Your task to perform on an android device: toggle javascript in the chrome app Image 0: 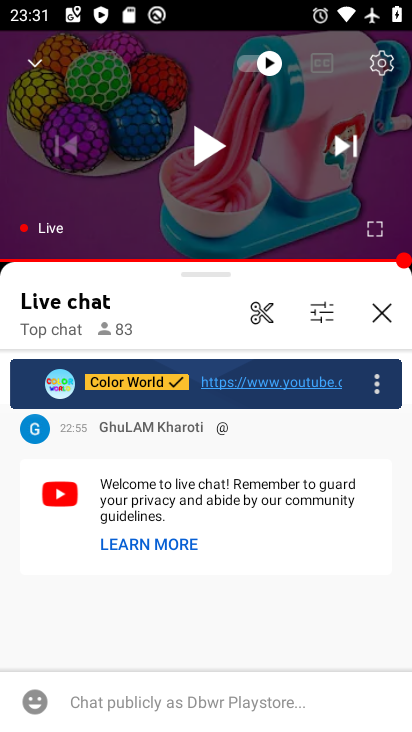
Step 0: press back button
Your task to perform on an android device: toggle javascript in the chrome app Image 1: 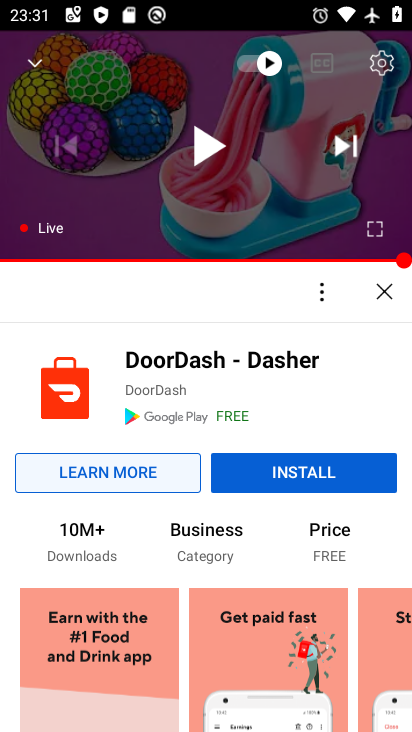
Step 1: press back button
Your task to perform on an android device: toggle javascript in the chrome app Image 2: 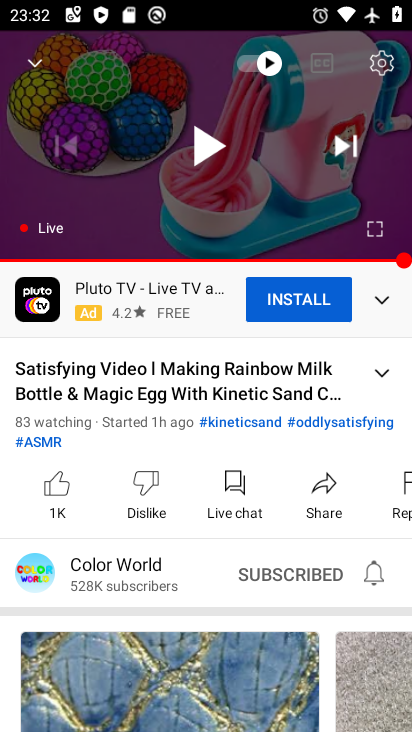
Step 2: press back button
Your task to perform on an android device: toggle javascript in the chrome app Image 3: 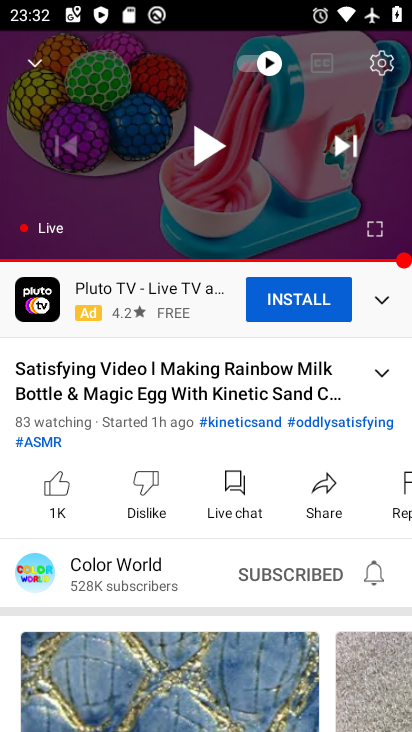
Step 3: press home button
Your task to perform on an android device: toggle javascript in the chrome app Image 4: 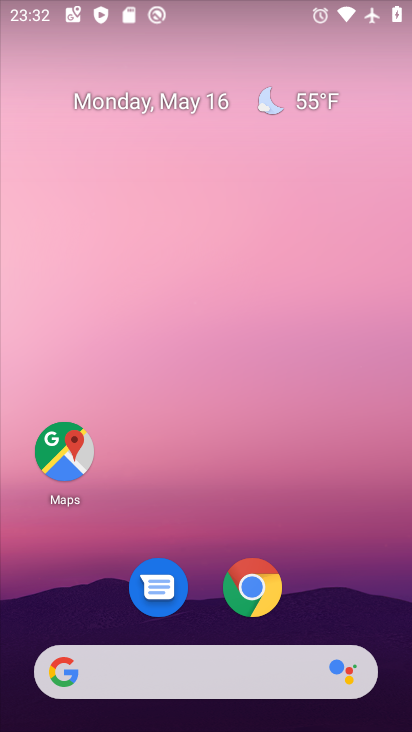
Step 4: drag from (324, 621) to (331, 5)
Your task to perform on an android device: toggle javascript in the chrome app Image 5: 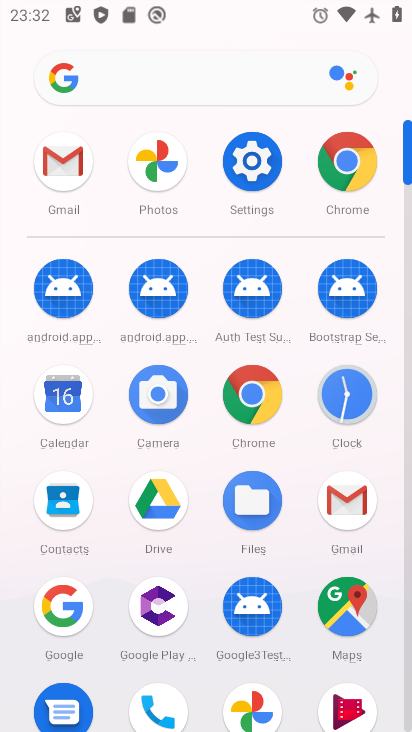
Step 5: click (252, 381)
Your task to perform on an android device: toggle javascript in the chrome app Image 6: 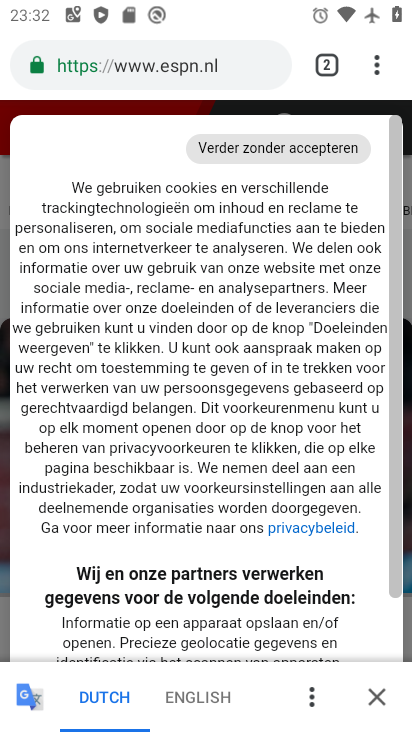
Step 6: drag from (372, 69) to (159, 633)
Your task to perform on an android device: toggle javascript in the chrome app Image 7: 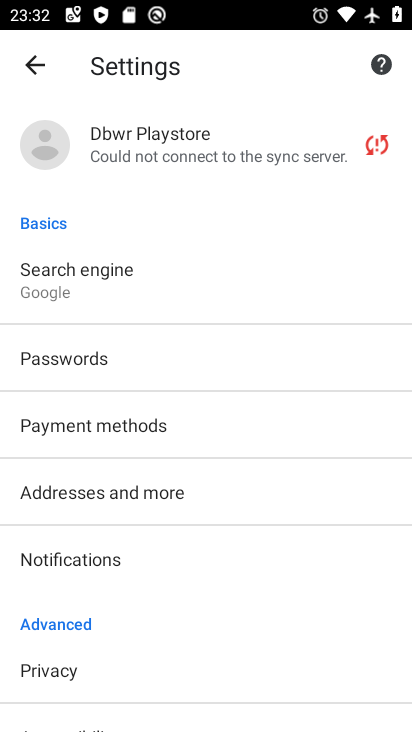
Step 7: drag from (238, 552) to (224, 270)
Your task to perform on an android device: toggle javascript in the chrome app Image 8: 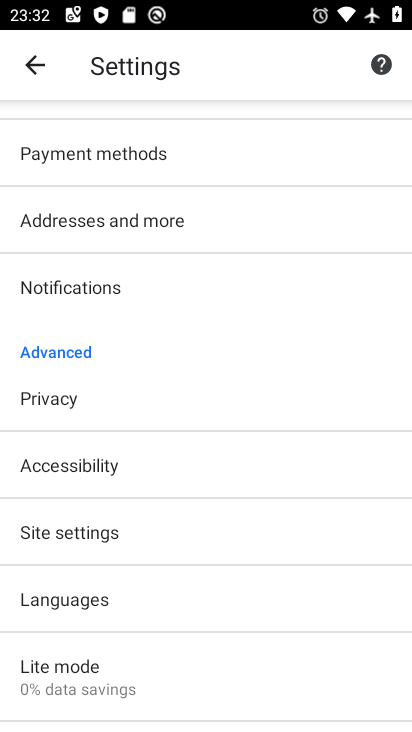
Step 8: click (121, 530)
Your task to perform on an android device: toggle javascript in the chrome app Image 9: 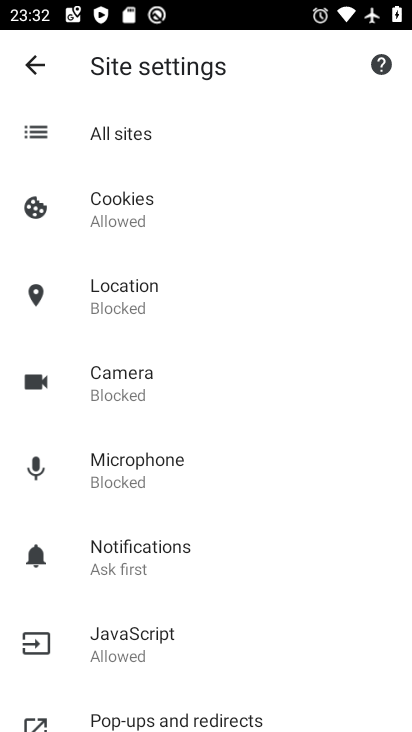
Step 9: drag from (182, 625) to (177, 254)
Your task to perform on an android device: toggle javascript in the chrome app Image 10: 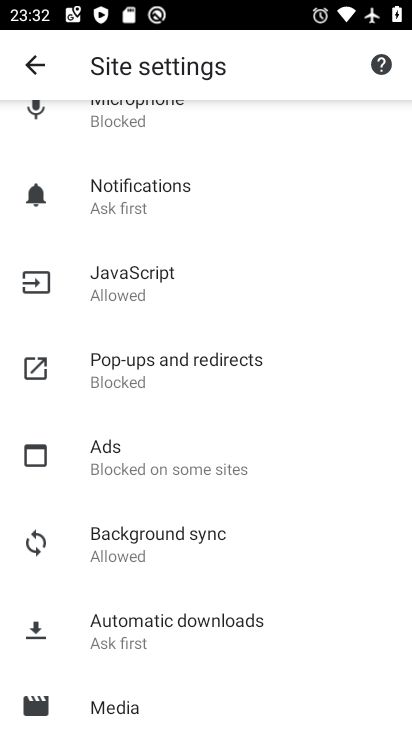
Step 10: click (173, 282)
Your task to perform on an android device: toggle javascript in the chrome app Image 11: 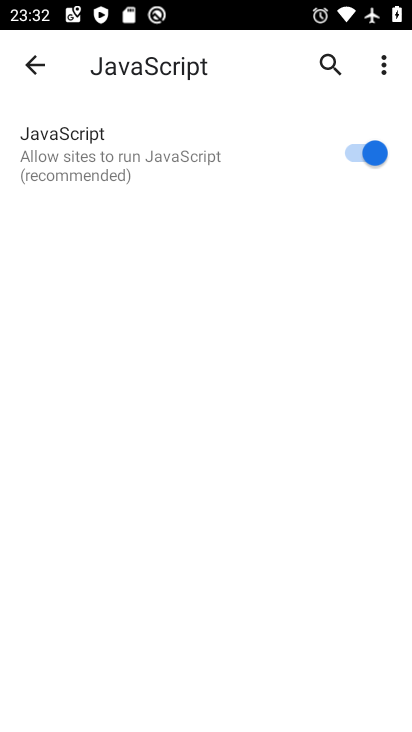
Step 11: click (350, 152)
Your task to perform on an android device: toggle javascript in the chrome app Image 12: 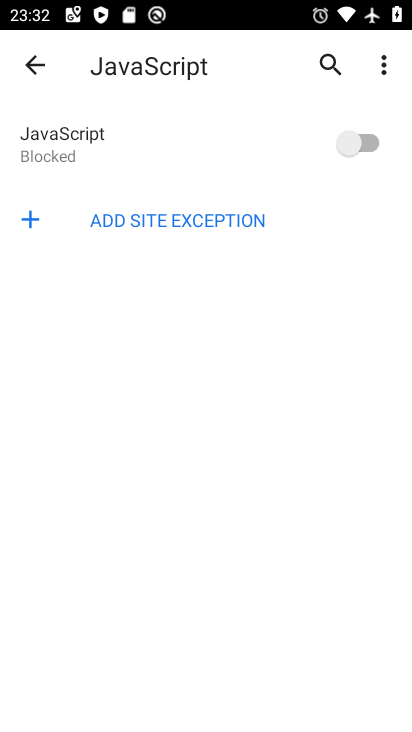
Step 12: task complete